Your task to perform on an android device: toggle javascript in the chrome app Image 0: 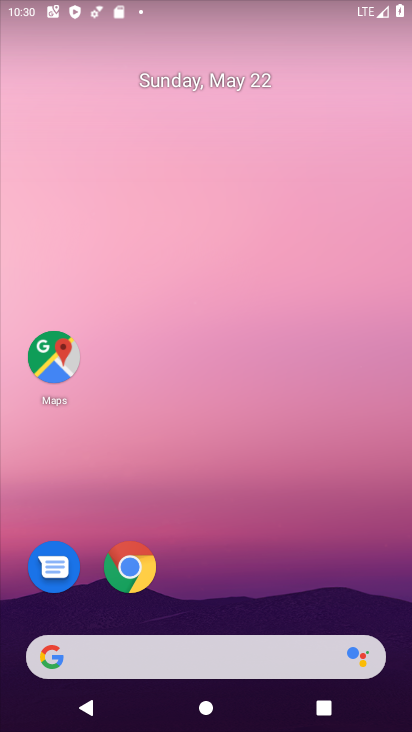
Step 0: click (133, 565)
Your task to perform on an android device: toggle javascript in the chrome app Image 1: 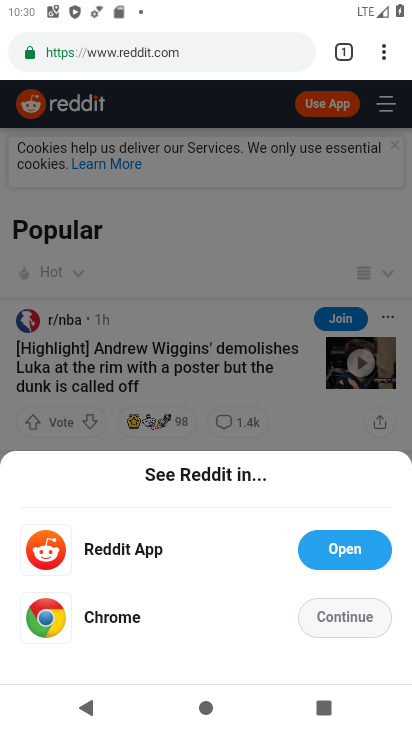
Step 1: click (386, 57)
Your task to perform on an android device: toggle javascript in the chrome app Image 2: 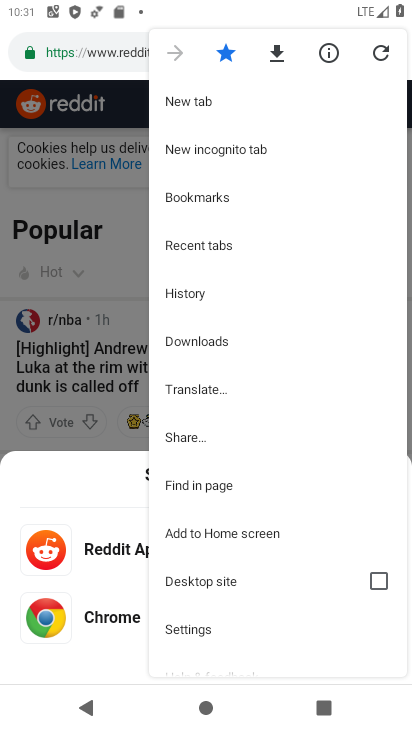
Step 2: click (190, 629)
Your task to perform on an android device: toggle javascript in the chrome app Image 3: 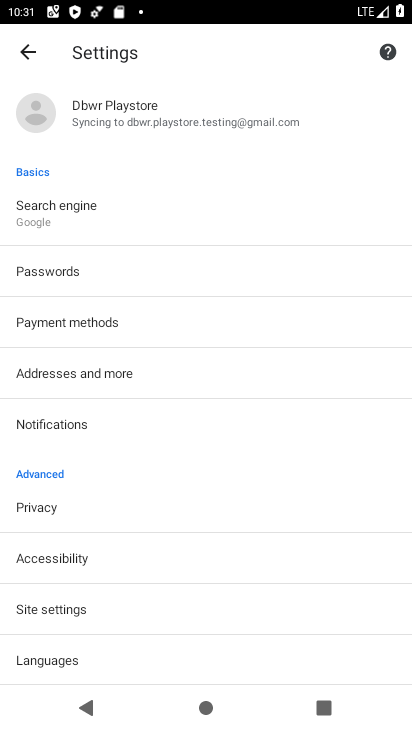
Step 3: drag from (218, 620) to (232, 253)
Your task to perform on an android device: toggle javascript in the chrome app Image 4: 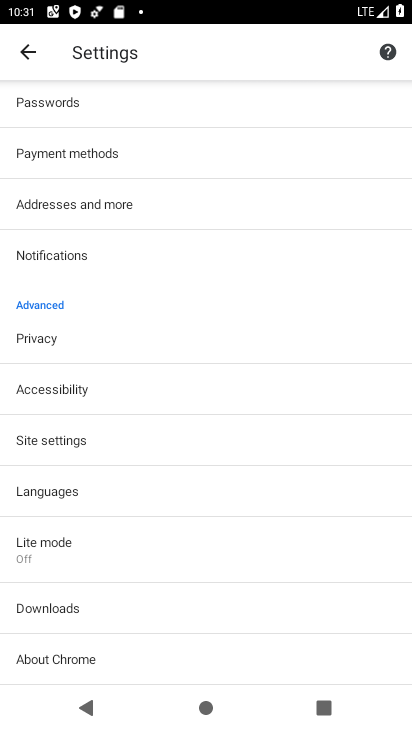
Step 4: click (49, 437)
Your task to perform on an android device: toggle javascript in the chrome app Image 5: 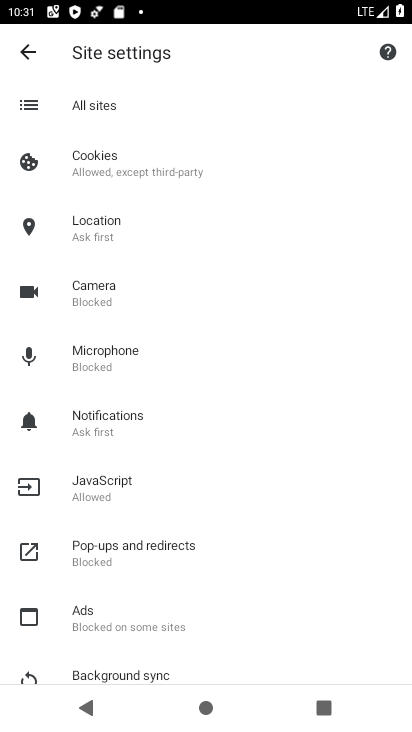
Step 5: click (107, 486)
Your task to perform on an android device: toggle javascript in the chrome app Image 6: 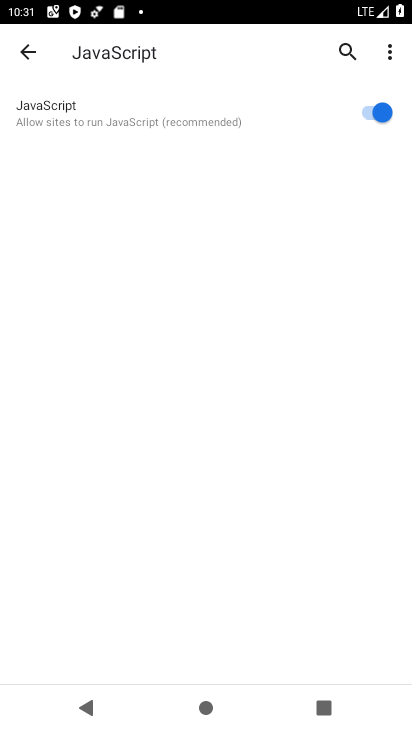
Step 6: click (362, 109)
Your task to perform on an android device: toggle javascript in the chrome app Image 7: 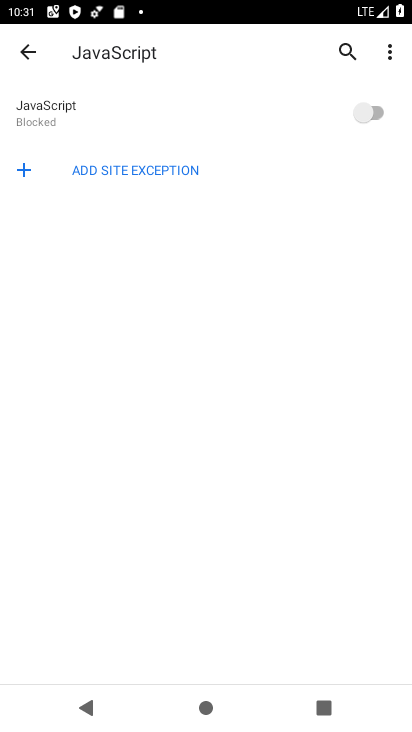
Step 7: task complete